Your task to perform on an android device: Open Google Image 0: 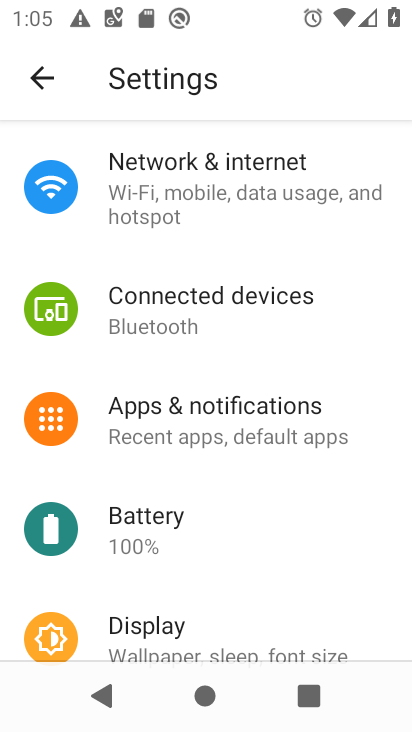
Step 0: press back button
Your task to perform on an android device: Open Google Image 1: 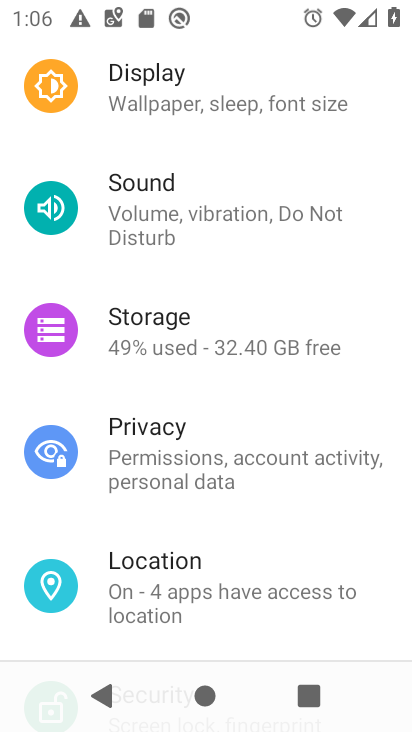
Step 1: press back button
Your task to perform on an android device: Open Google Image 2: 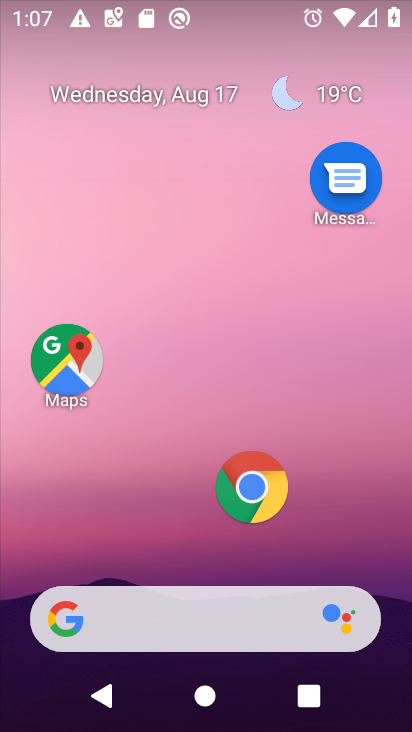
Step 2: drag from (166, 343) to (80, 7)
Your task to perform on an android device: Open Google Image 3: 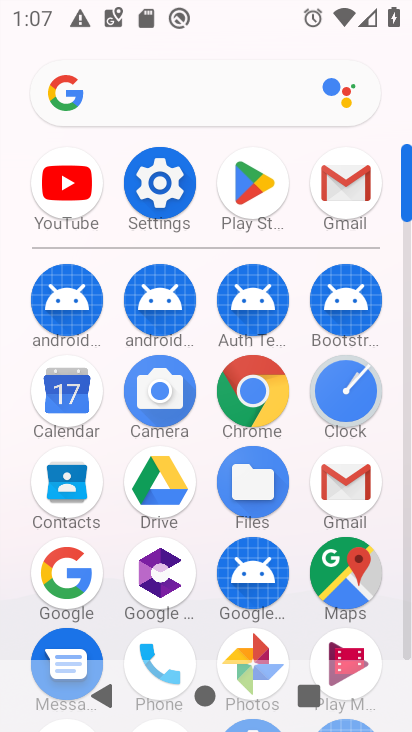
Step 3: click (48, 573)
Your task to perform on an android device: Open Google Image 4: 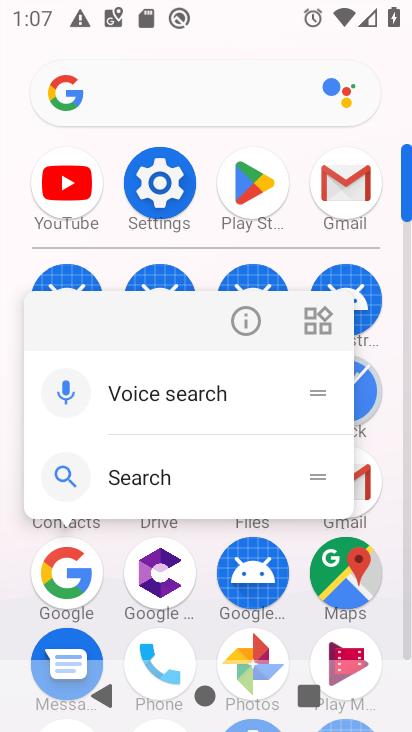
Step 4: click (61, 572)
Your task to perform on an android device: Open Google Image 5: 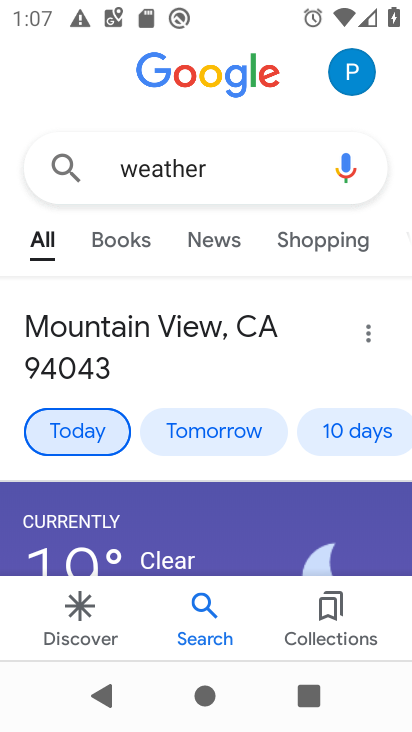
Step 5: task complete